Your task to perform on an android device: Open network settings Image 0: 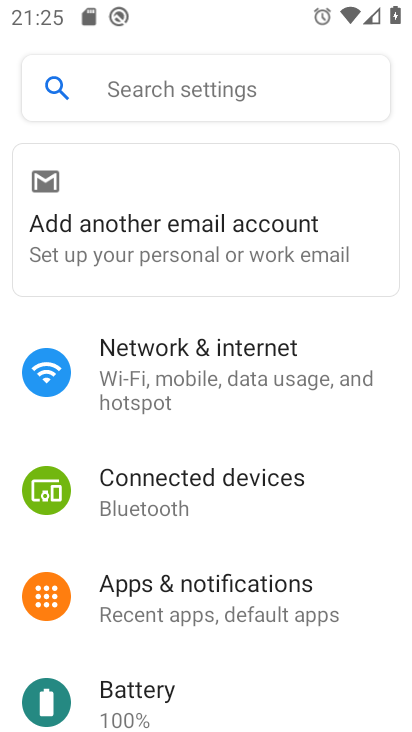
Step 0: click (255, 373)
Your task to perform on an android device: Open network settings Image 1: 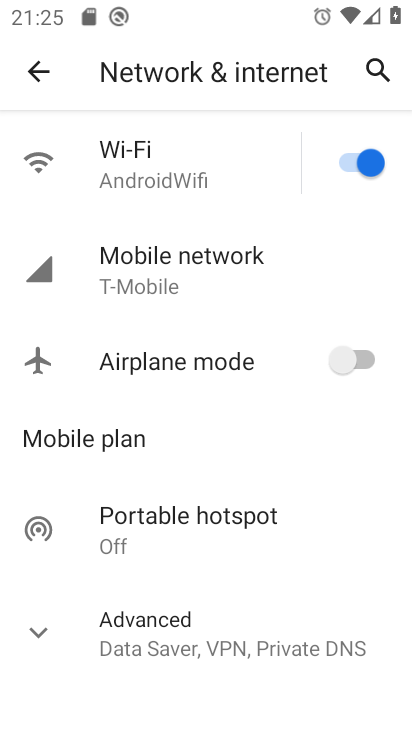
Step 1: task complete